Your task to perform on an android device: change timer sound Image 0: 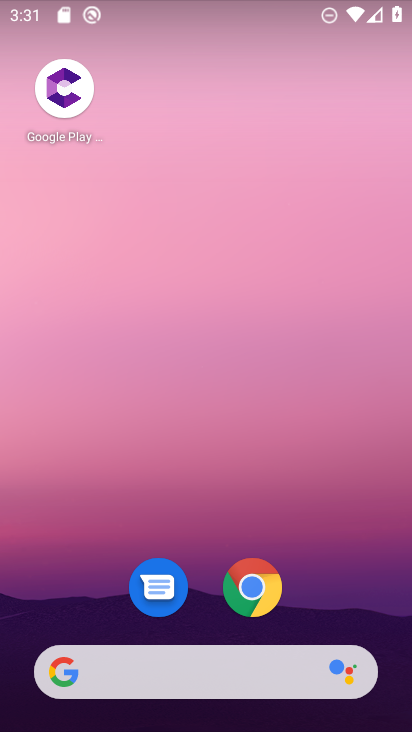
Step 0: drag from (349, 594) to (393, 126)
Your task to perform on an android device: change timer sound Image 1: 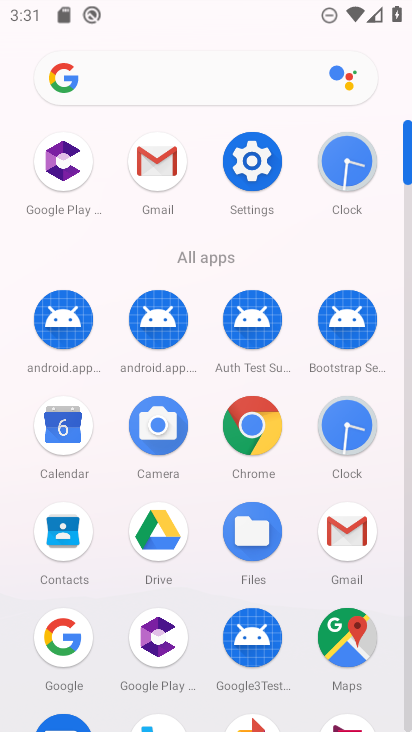
Step 1: click (358, 440)
Your task to perform on an android device: change timer sound Image 2: 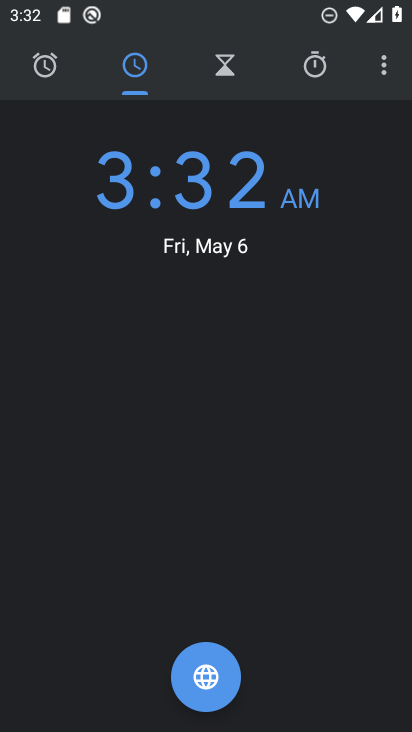
Step 2: click (385, 70)
Your task to perform on an android device: change timer sound Image 3: 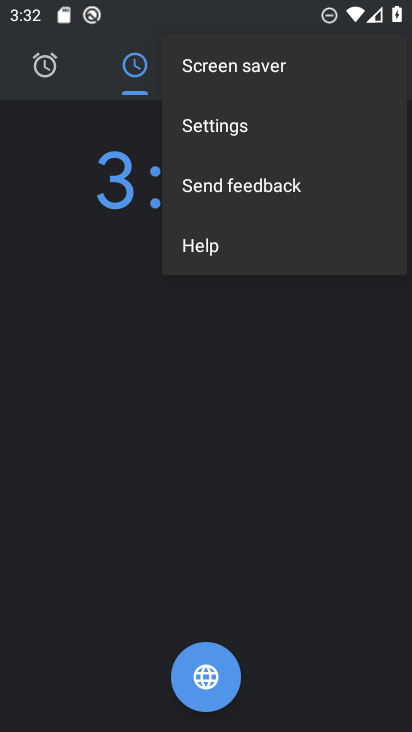
Step 3: click (233, 148)
Your task to perform on an android device: change timer sound Image 4: 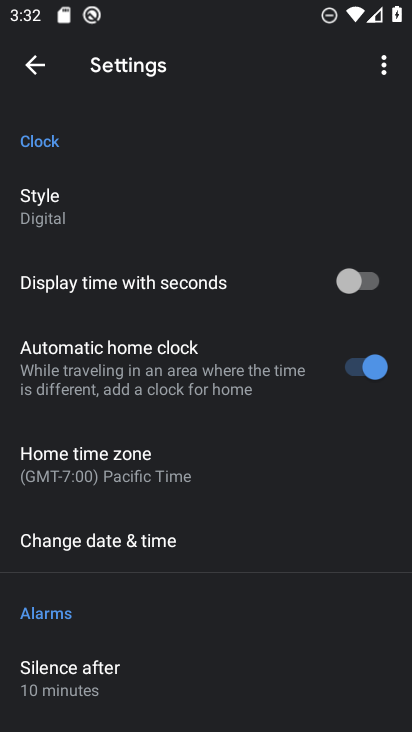
Step 4: drag from (135, 633) to (153, 395)
Your task to perform on an android device: change timer sound Image 5: 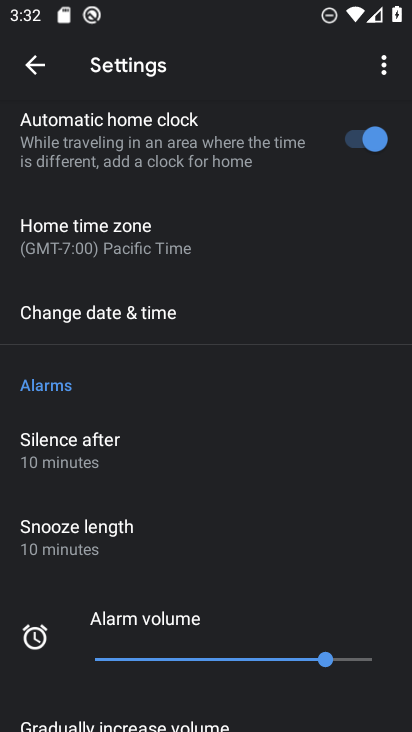
Step 5: drag from (175, 548) to (217, 237)
Your task to perform on an android device: change timer sound Image 6: 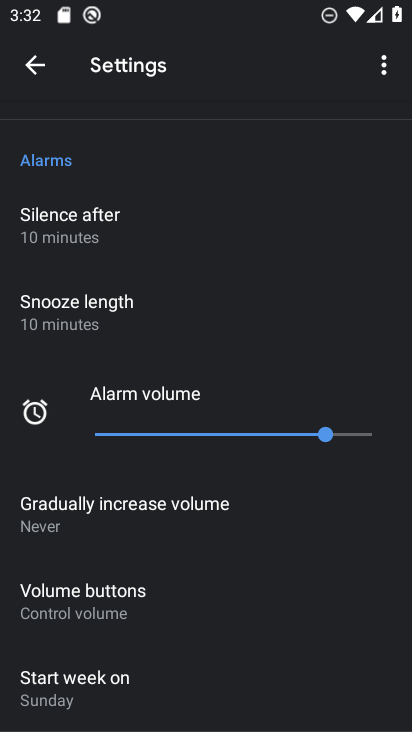
Step 6: drag from (128, 632) to (164, 343)
Your task to perform on an android device: change timer sound Image 7: 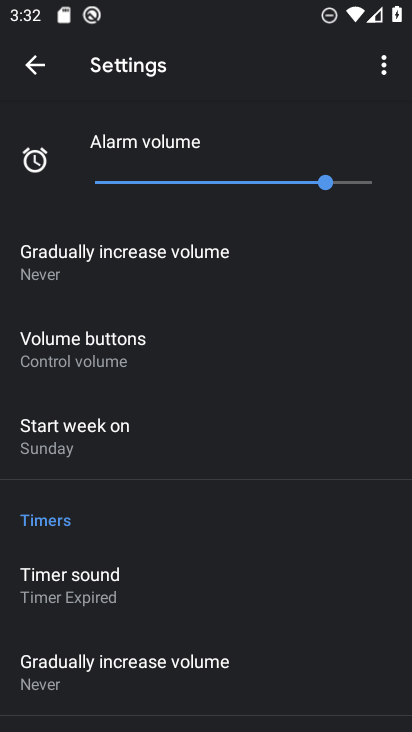
Step 7: drag from (181, 652) to (181, 312)
Your task to perform on an android device: change timer sound Image 8: 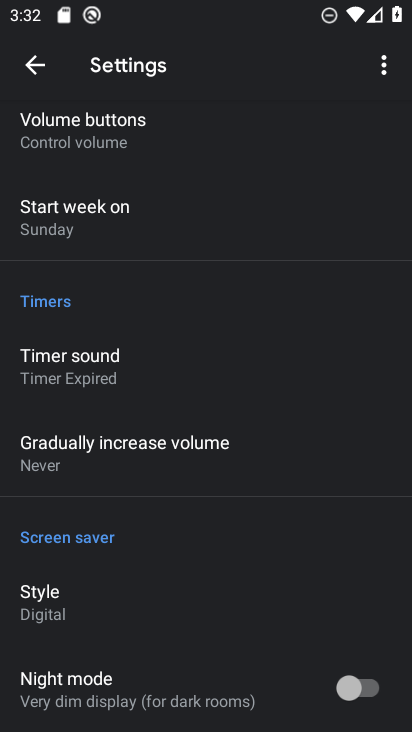
Step 8: drag from (168, 594) to (188, 368)
Your task to perform on an android device: change timer sound Image 9: 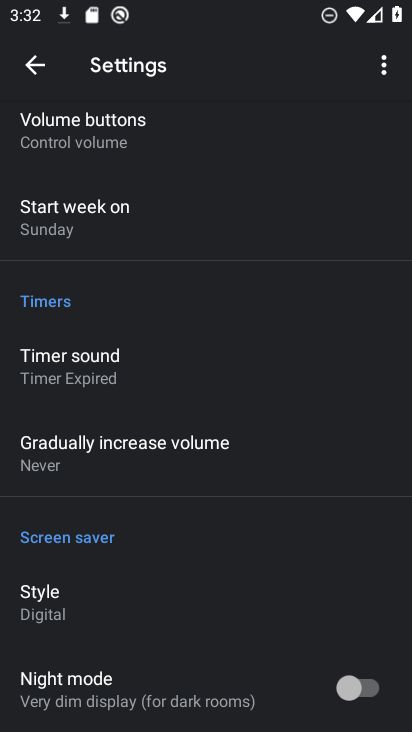
Step 9: drag from (229, 284) to (211, 620)
Your task to perform on an android device: change timer sound Image 10: 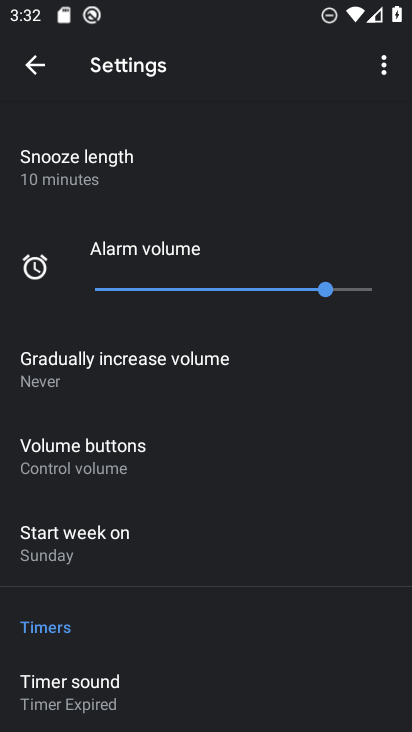
Step 10: drag from (215, 426) to (211, 579)
Your task to perform on an android device: change timer sound Image 11: 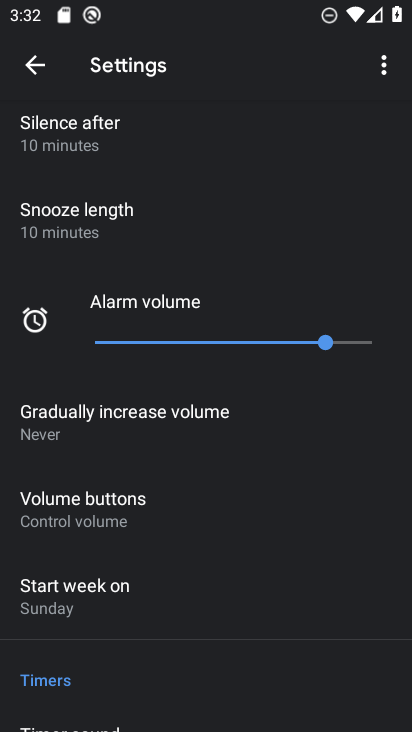
Step 11: drag from (178, 633) to (191, 295)
Your task to perform on an android device: change timer sound Image 12: 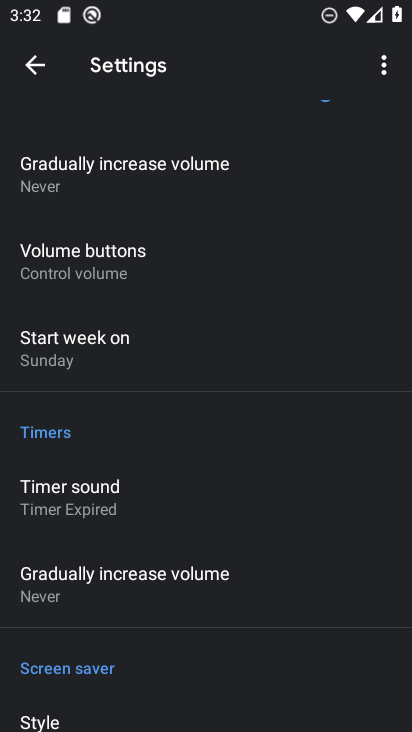
Step 12: click (96, 506)
Your task to perform on an android device: change timer sound Image 13: 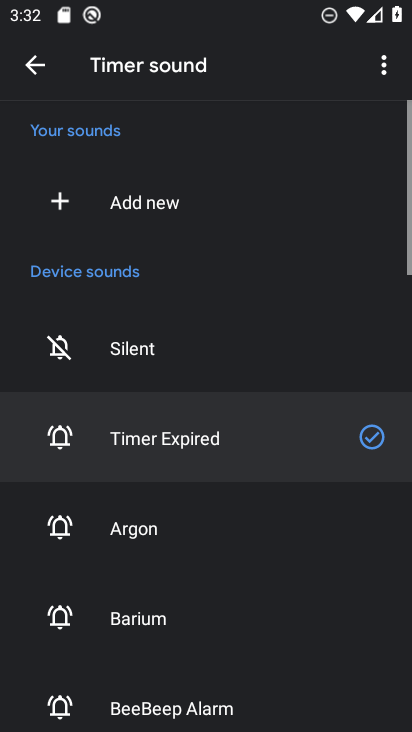
Step 13: click (118, 538)
Your task to perform on an android device: change timer sound Image 14: 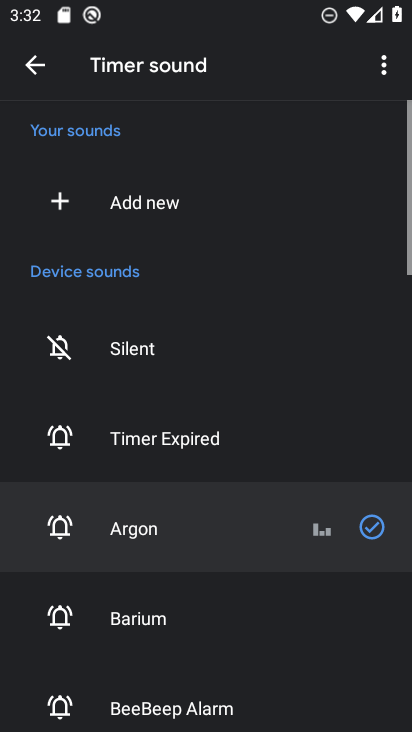
Step 14: task complete